Your task to perform on an android device: toggle location history Image 0: 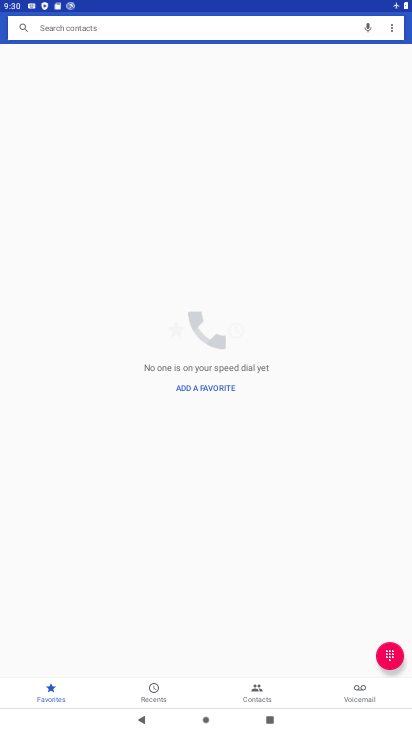
Step 0: press home button
Your task to perform on an android device: toggle location history Image 1: 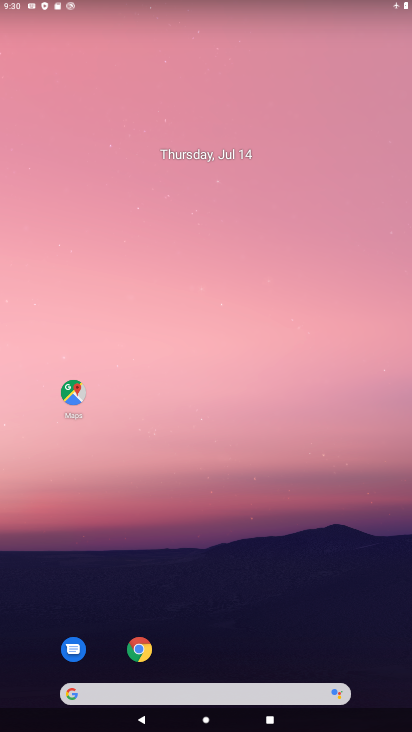
Step 1: drag from (151, 631) to (200, 247)
Your task to perform on an android device: toggle location history Image 2: 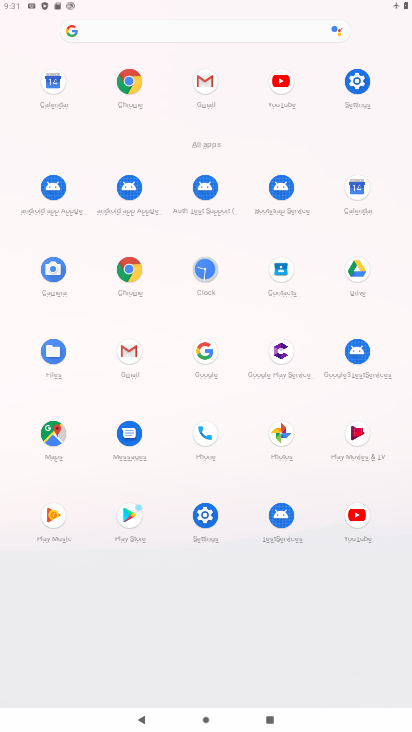
Step 2: click (353, 109)
Your task to perform on an android device: toggle location history Image 3: 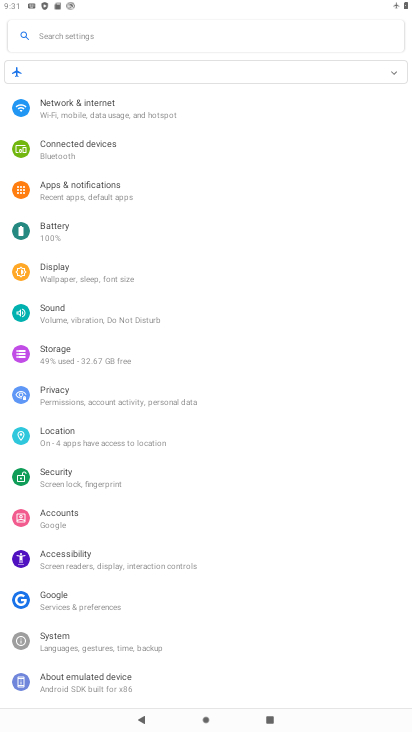
Step 3: click (49, 431)
Your task to perform on an android device: toggle location history Image 4: 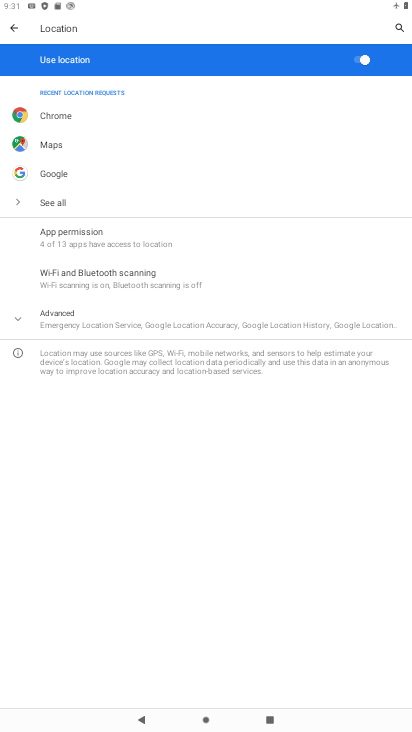
Step 4: click (56, 319)
Your task to perform on an android device: toggle location history Image 5: 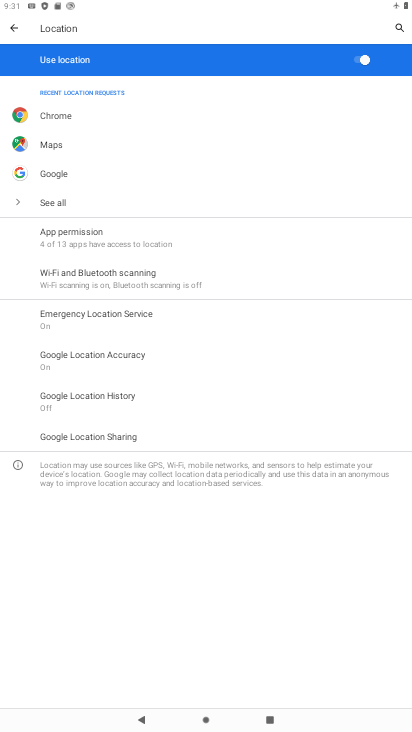
Step 5: click (97, 399)
Your task to perform on an android device: toggle location history Image 6: 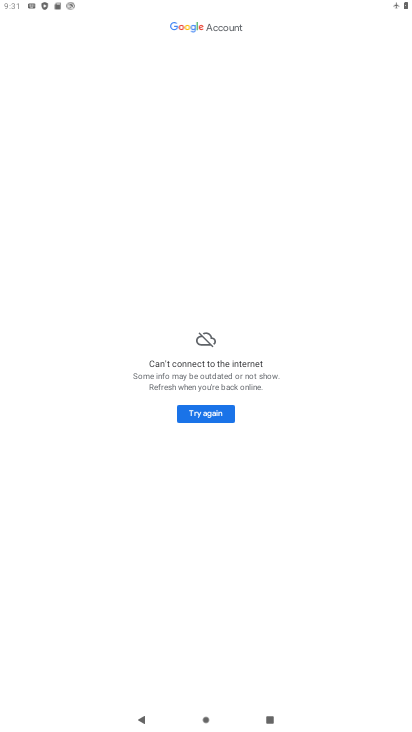
Step 6: task complete